Your task to perform on an android device: see sites visited before in the chrome app Image 0: 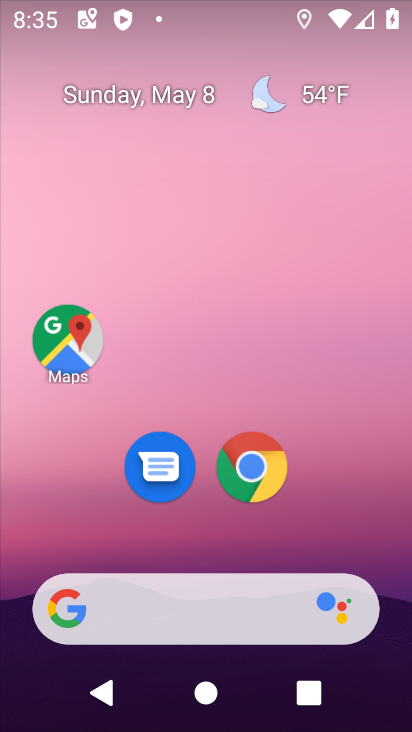
Step 0: click (251, 465)
Your task to perform on an android device: see sites visited before in the chrome app Image 1: 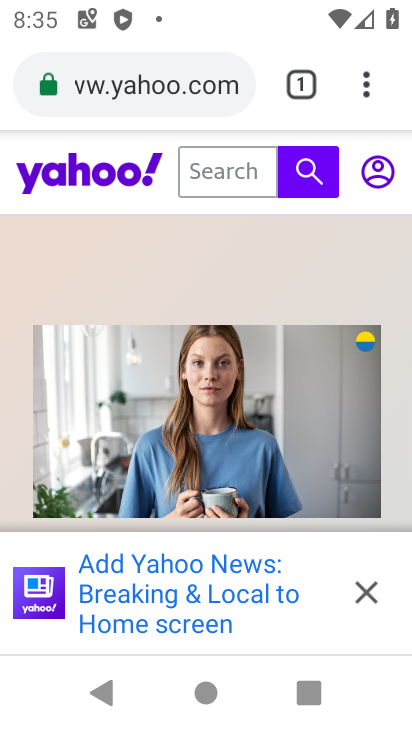
Step 1: click (365, 93)
Your task to perform on an android device: see sites visited before in the chrome app Image 2: 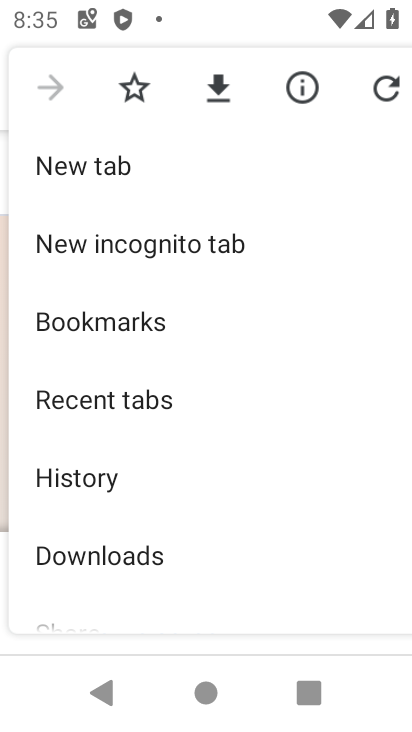
Step 2: click (72, 480)
Your task to perform on an android device: see sites visited before in the chrome app Image 3: 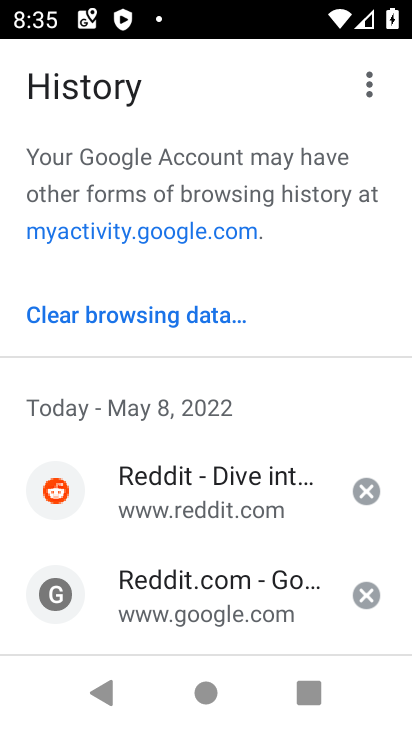
Step 3: task complete